Your task to perform on an android device: open app "DuckDuckGo Privacy Browser" (install if not already installed) Image 0: 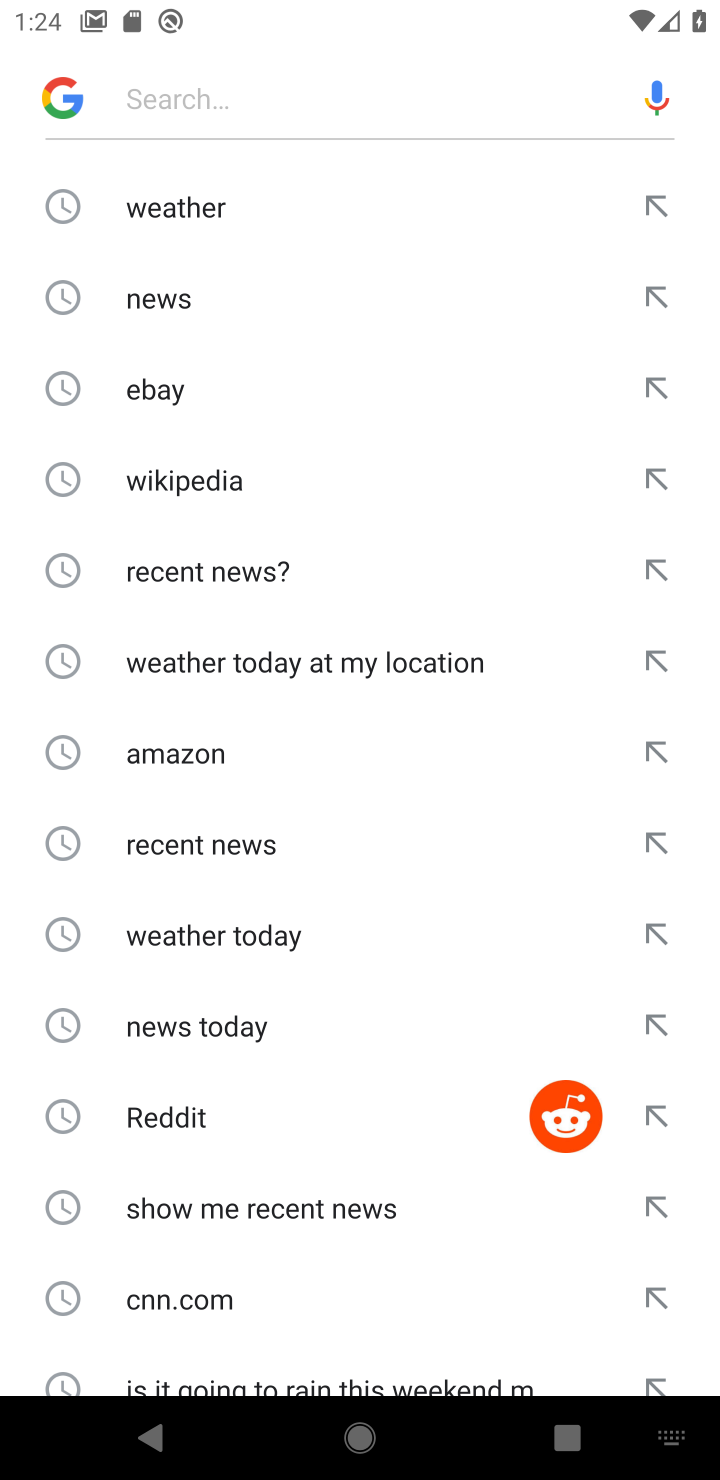
Step 0: press home button
Your task to perform on an android device: open app "DuckDuckGo Privacy Browser" (install if not already installed) Image 1: 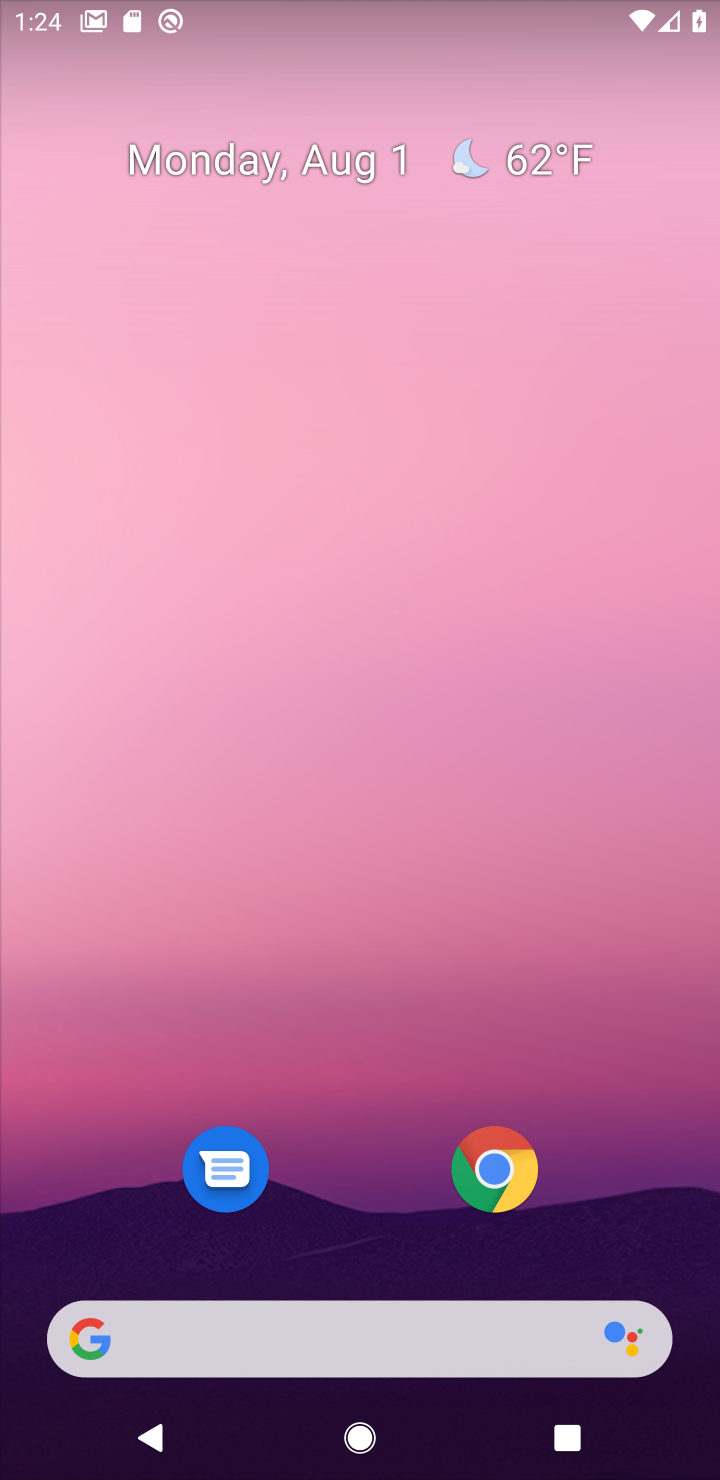
Step 1: drag from (356, 1190) to (714, 187)
Your task to perform on an android device: open app "DuckDuckGo Privacy Browser" (install if not already installed) Image 2: 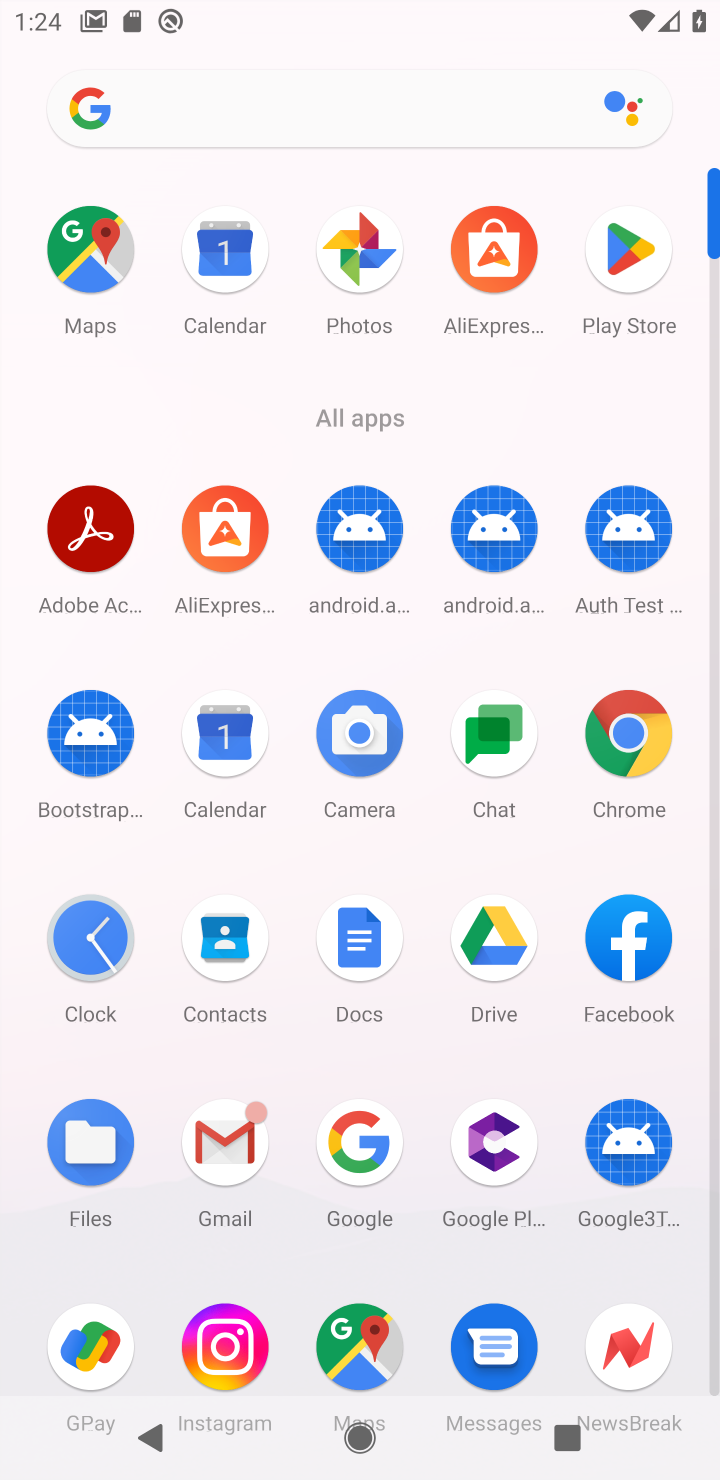
Step 2: click (609, 298)
Your task to perform on an android device: open app "DuckDuckGo Privacy Browser" (install if not already installed) Image 3: 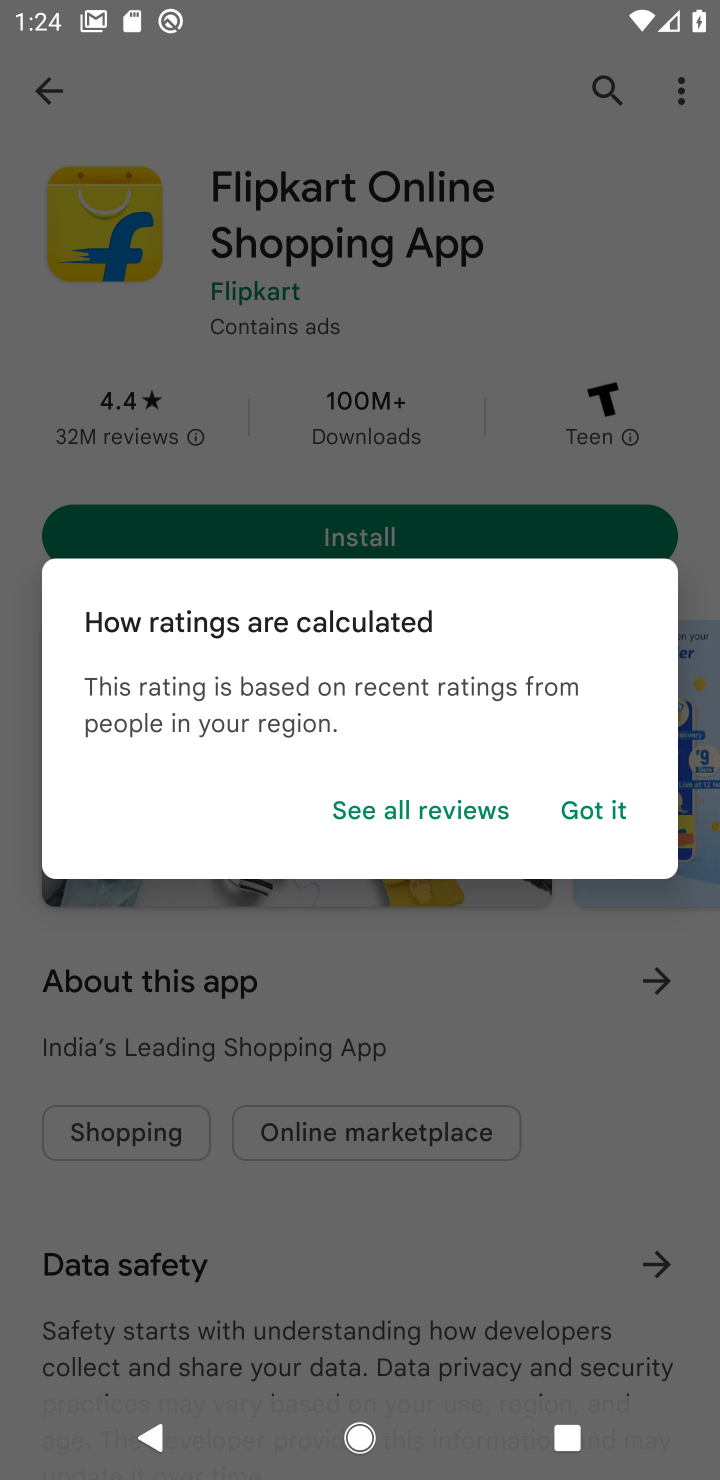
Step 3: click (593, 793)
Your task to perform on an android device: open app "DuckDuckGo Privacy Browser" (install if not already installed) Image 4: 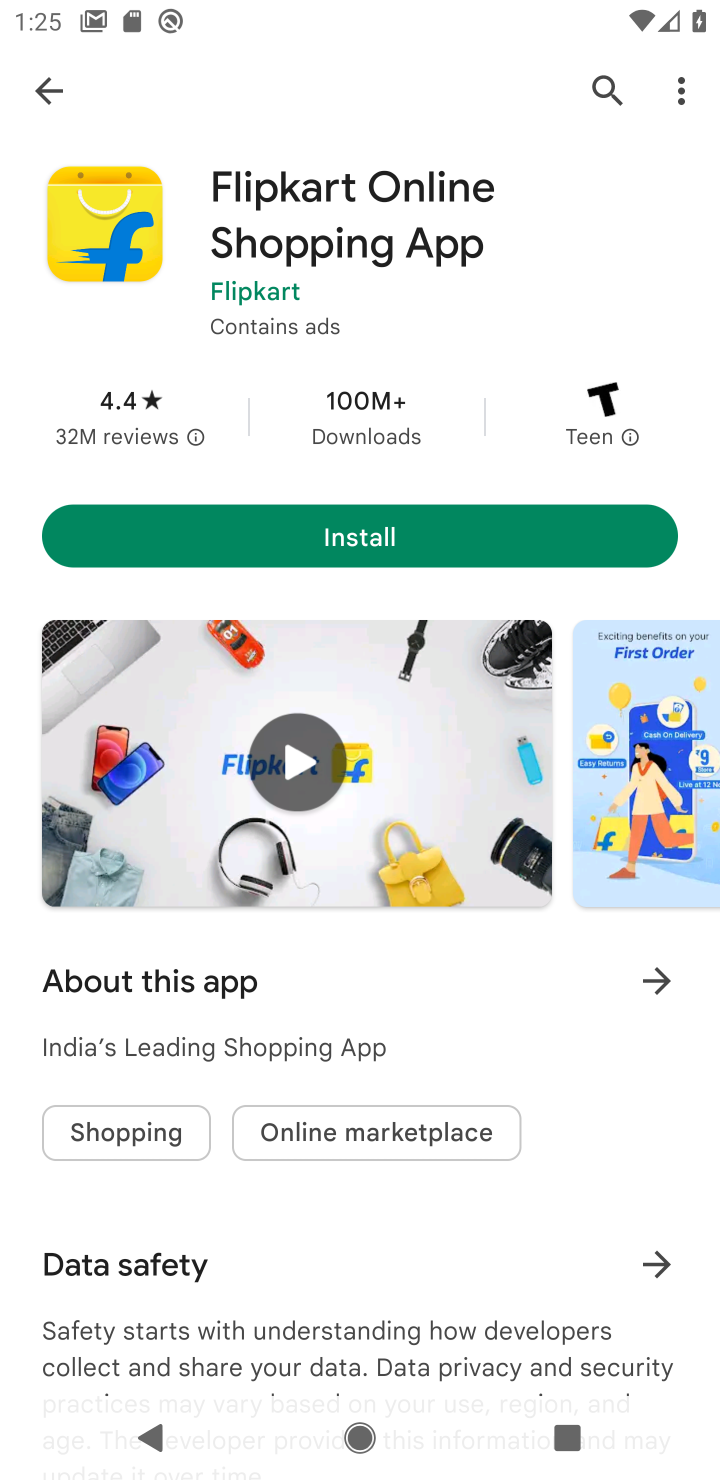
Step 4: click (32, 72)
Your task to perform on an android device: open app "DuckDuckGo Privacy Browser" (install if not already installed) Image 5: 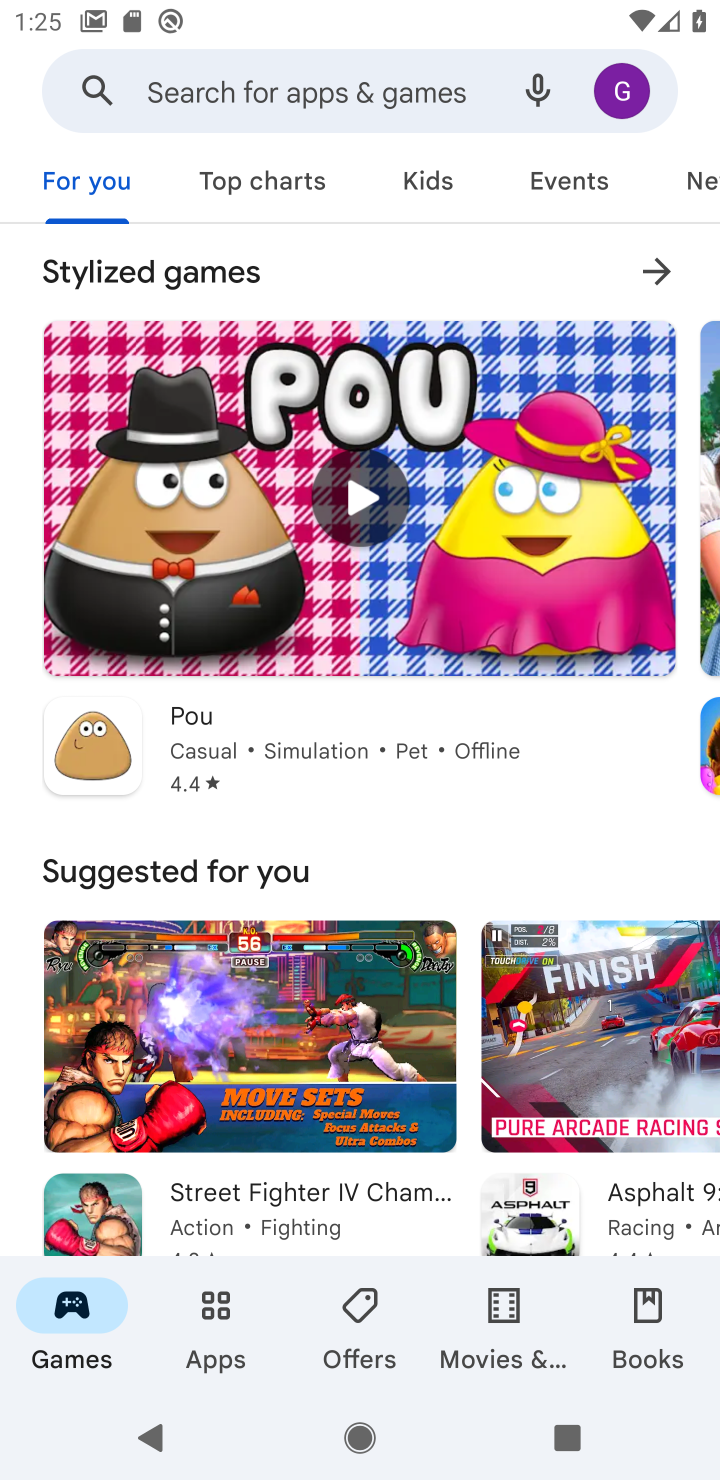
Step 5: click (288, 114)
Your task to perform on an android device: open app "DuckDuckGo Privacy Browser" (install if not already installed) Image 6: 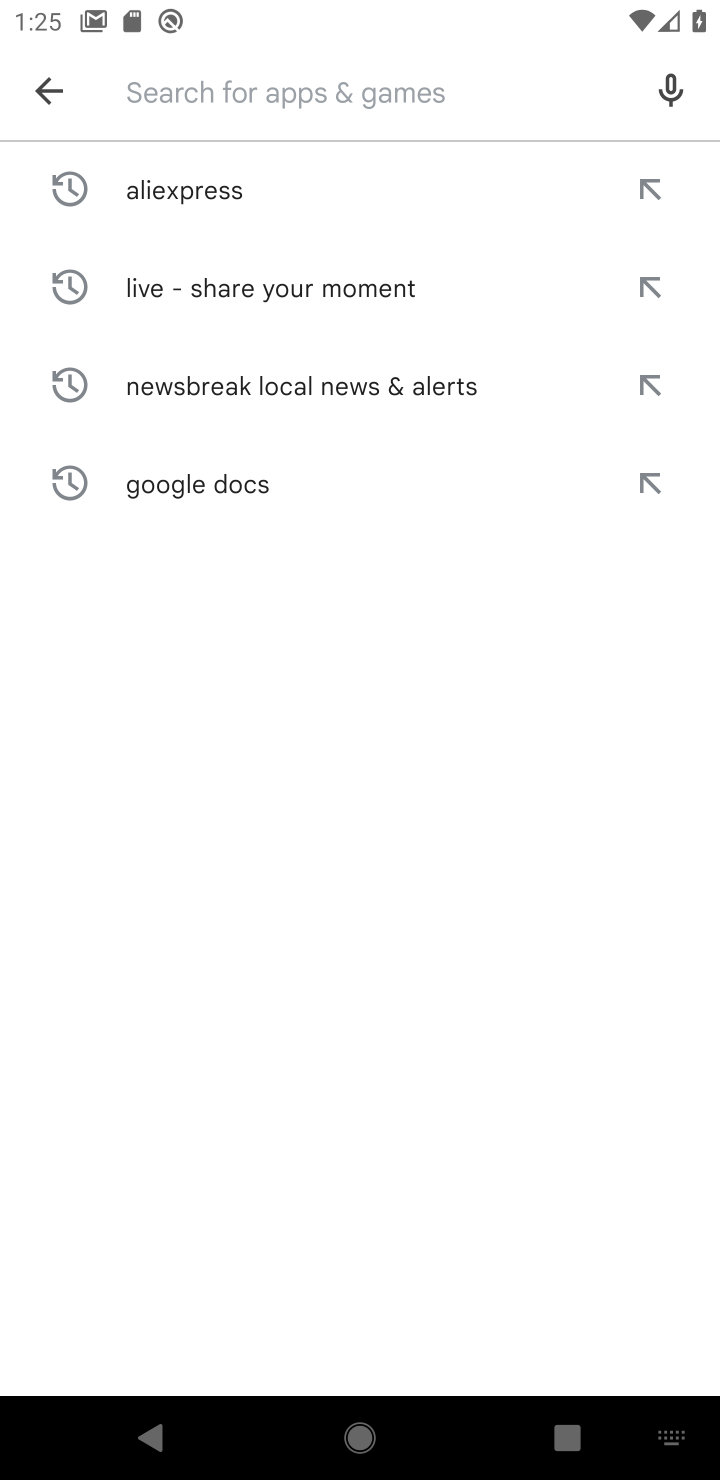
Step 6: type "DuckDuckGo Privacy Browser"
Your task to perform on an android device: open app "DuckDuckGo Privacy Browser" (install if not already installed) Image 7: 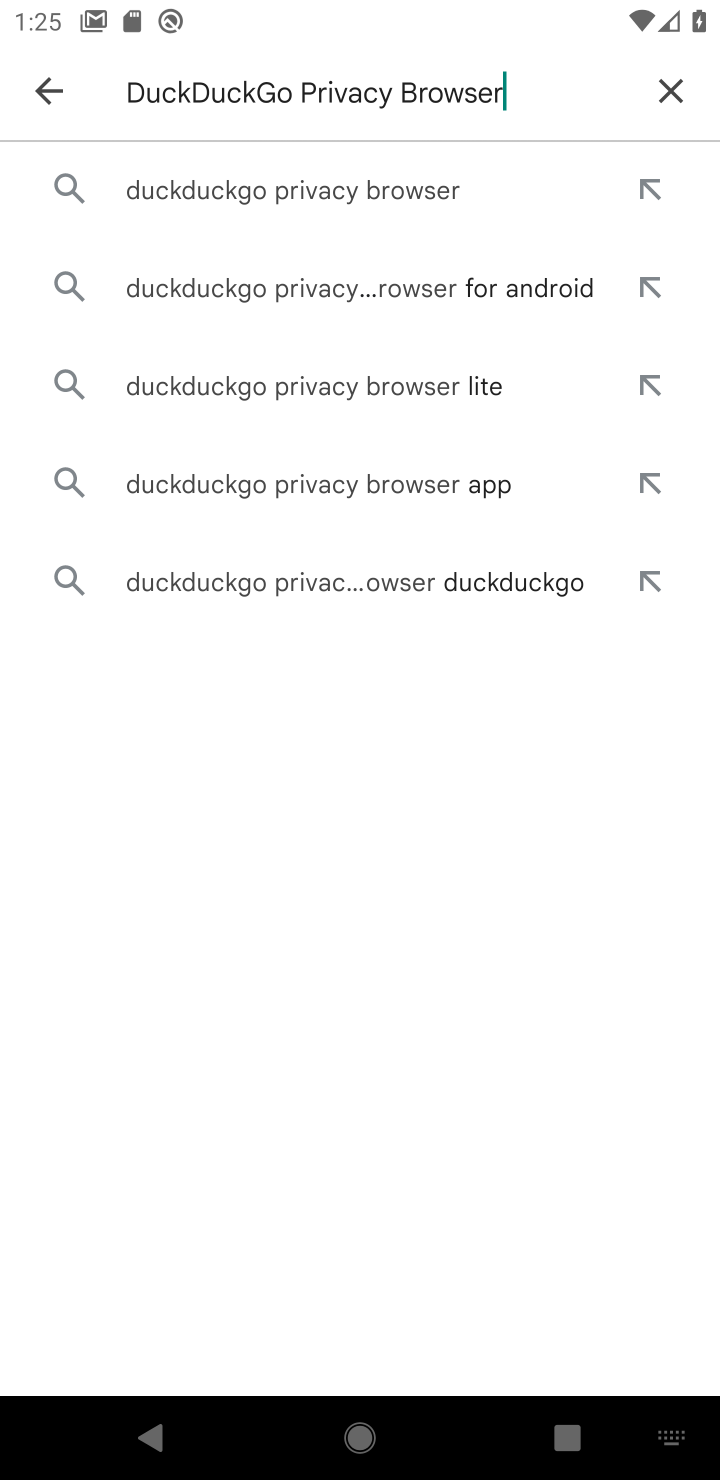
Step 7: click (286, 193)
Your task to perform on an android device: open app "DuckDuckGo Privacy Browser" (install if not already installed) Image 8: 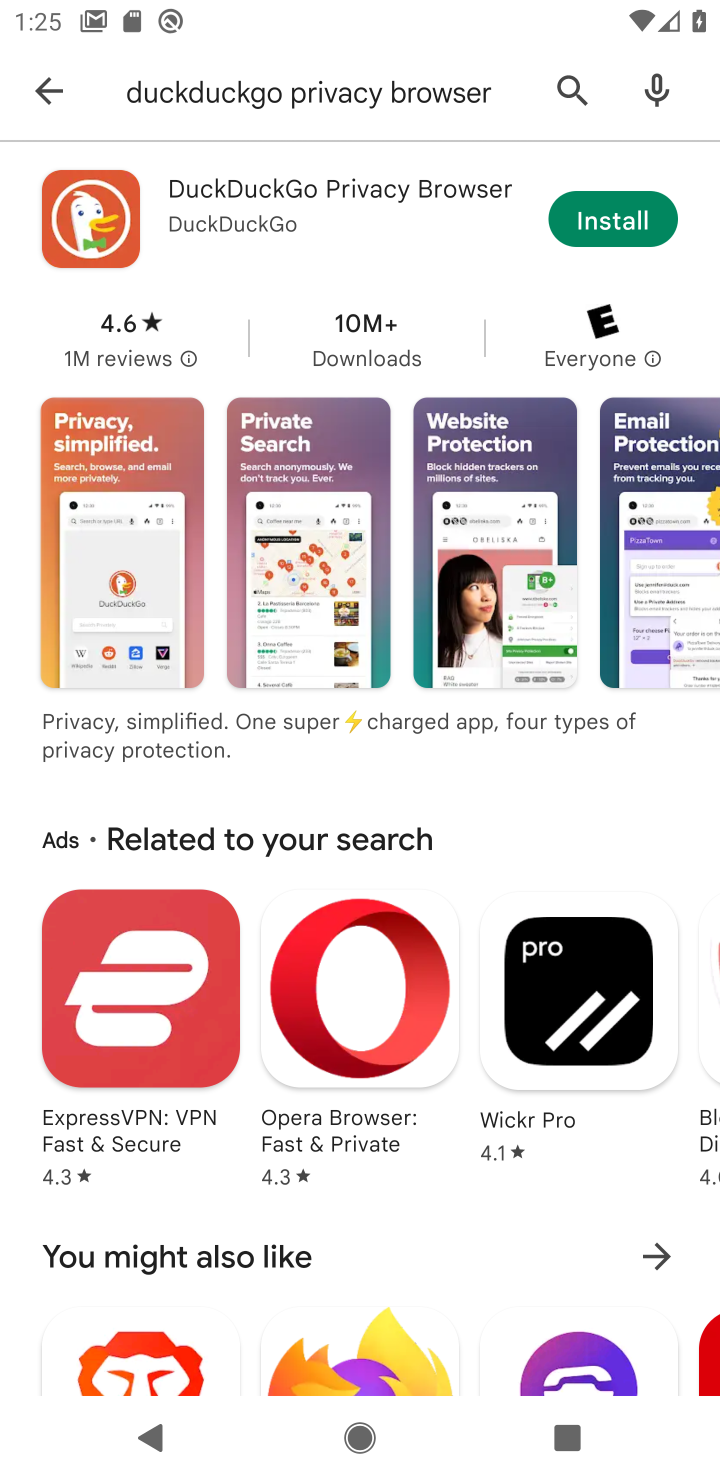
Step 8: click (597, 214)
Your task to perform on an android device: open app "DuckDuckGo Privacy Browser" (install if not already installed) Image 9: 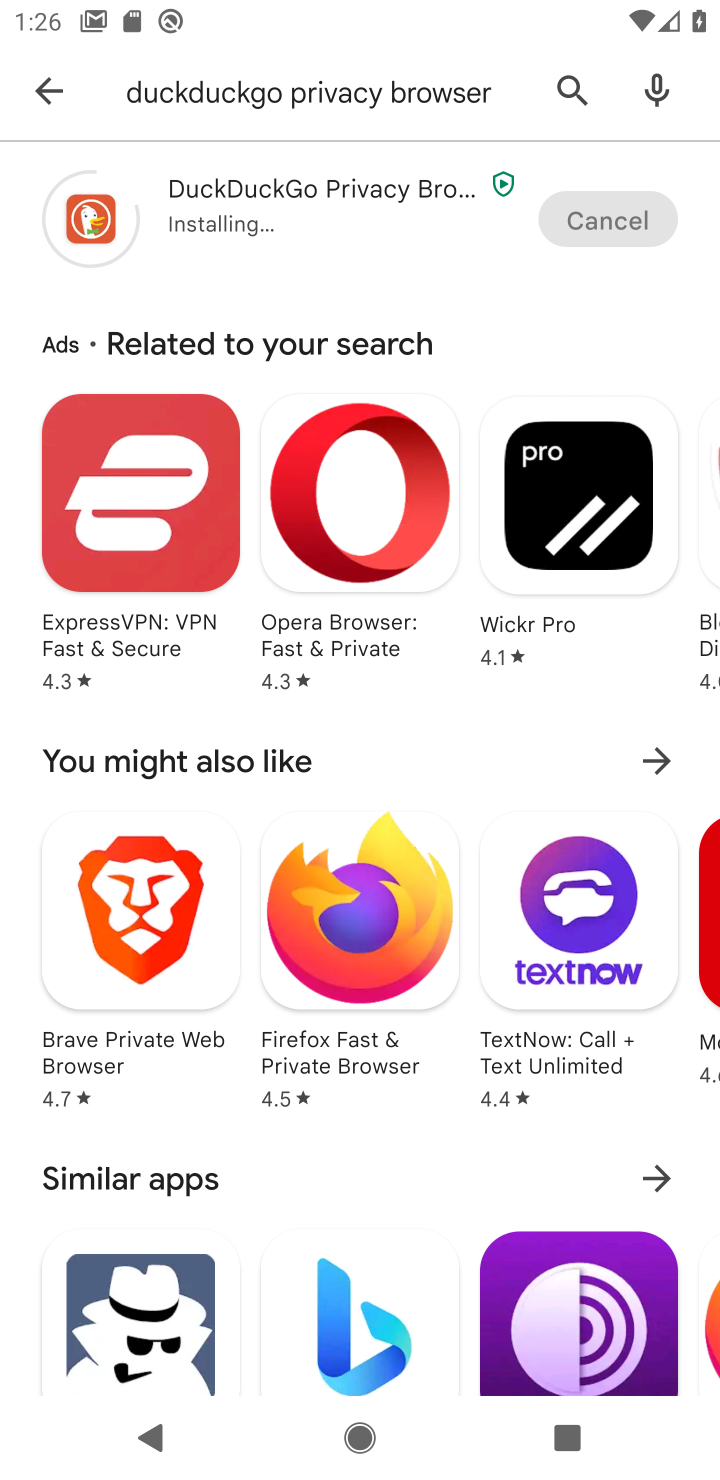
Step 9: task complete